Your task to perform on an android device: open app "Google Chrome" Image 0: 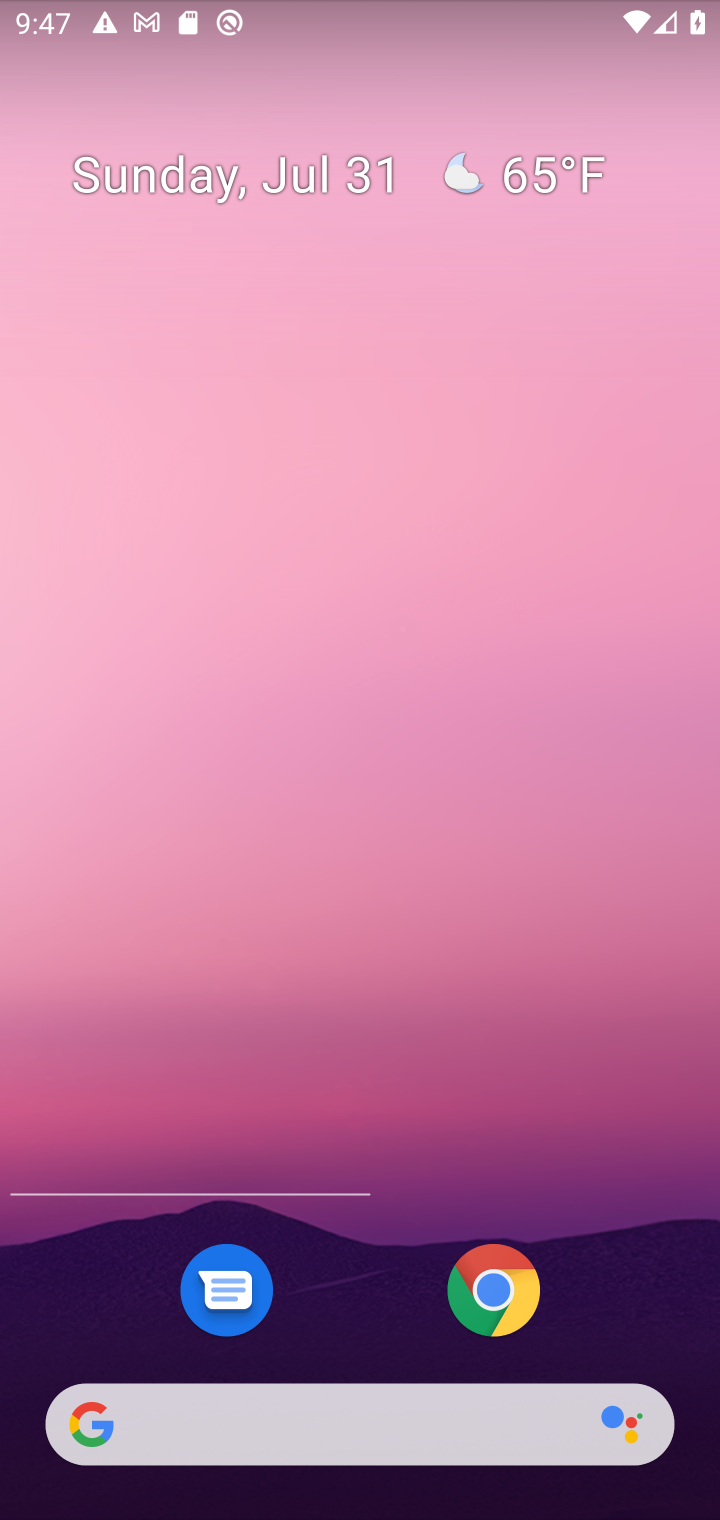
Step 0: press home button
Your task to perform on an android device: open app "Google Chrome" Image 1: 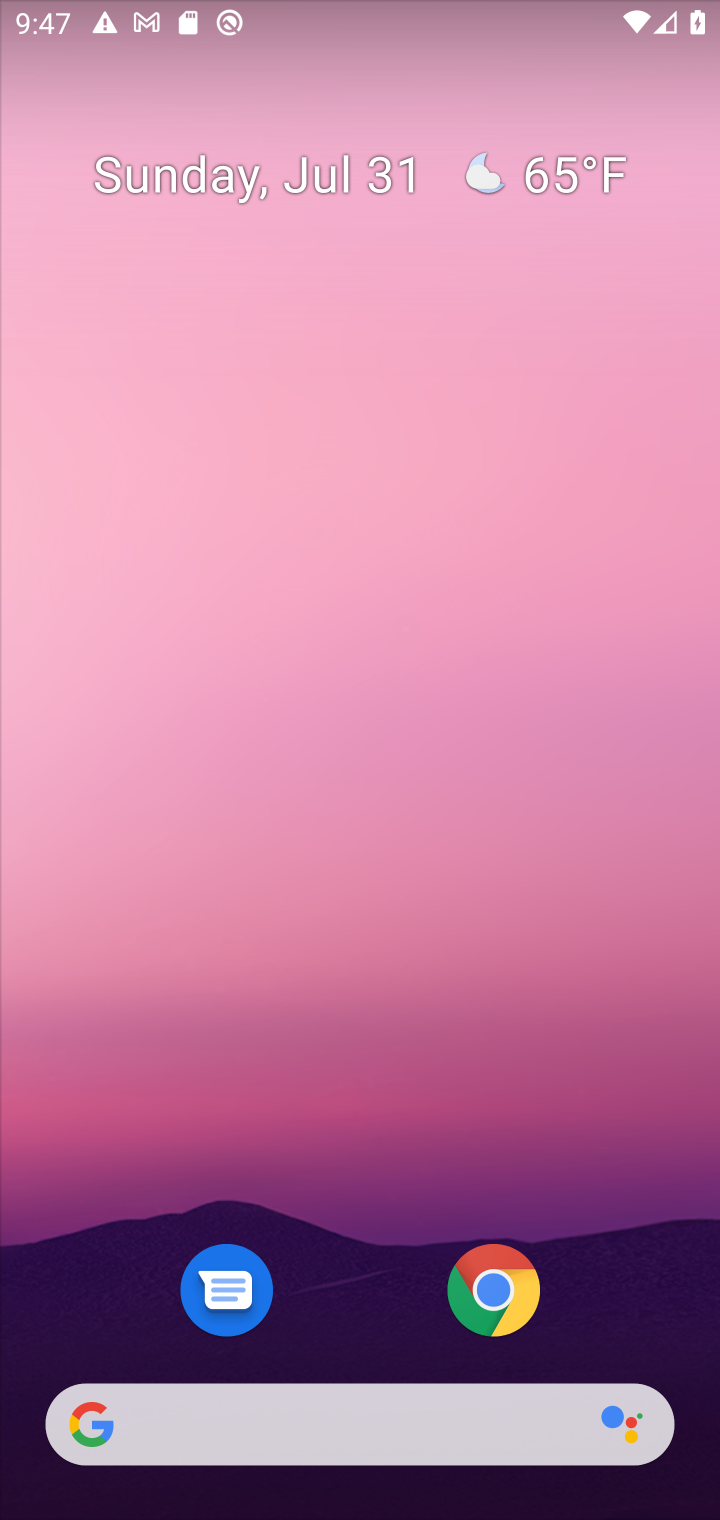
Step 1: drag from (609, 1287) to (600, 159)
Your task to perform on an android device: open app "Google Chrome" Image 2: 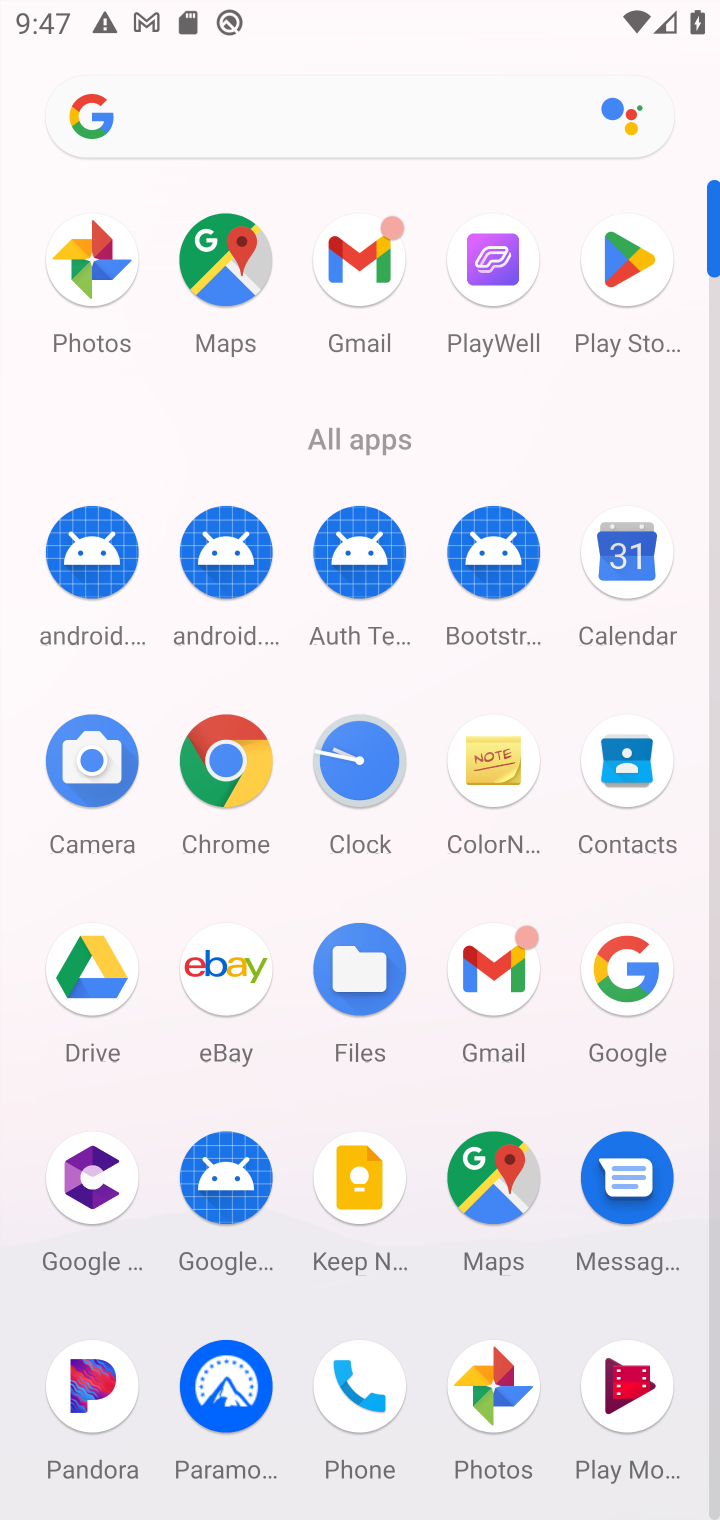
Step 2: click (619, 262)
Your task to perform on an android device: open app "Google Chrome" Image 3: 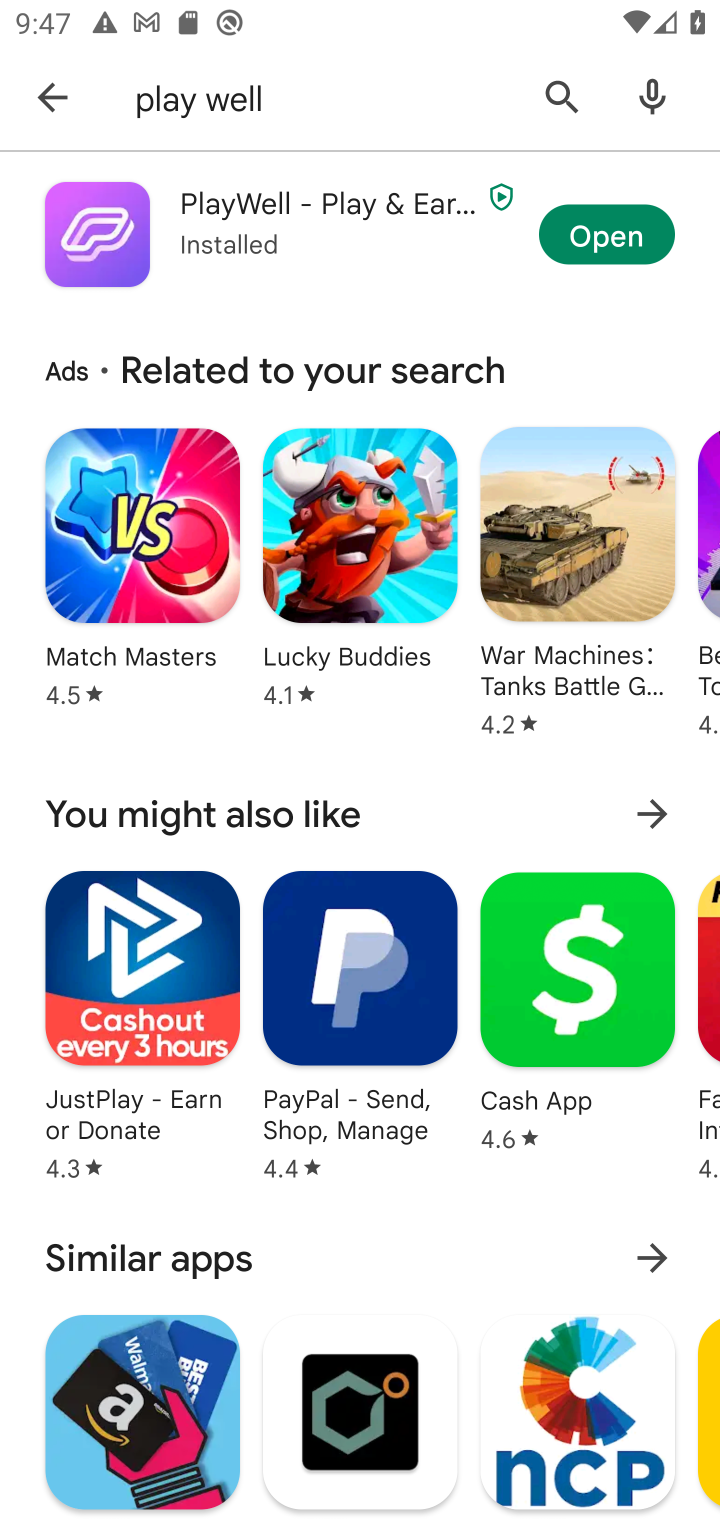
Step 3: click (554, 88)
Your task to perform on an android device: open app "Google Chrome" Image 4: 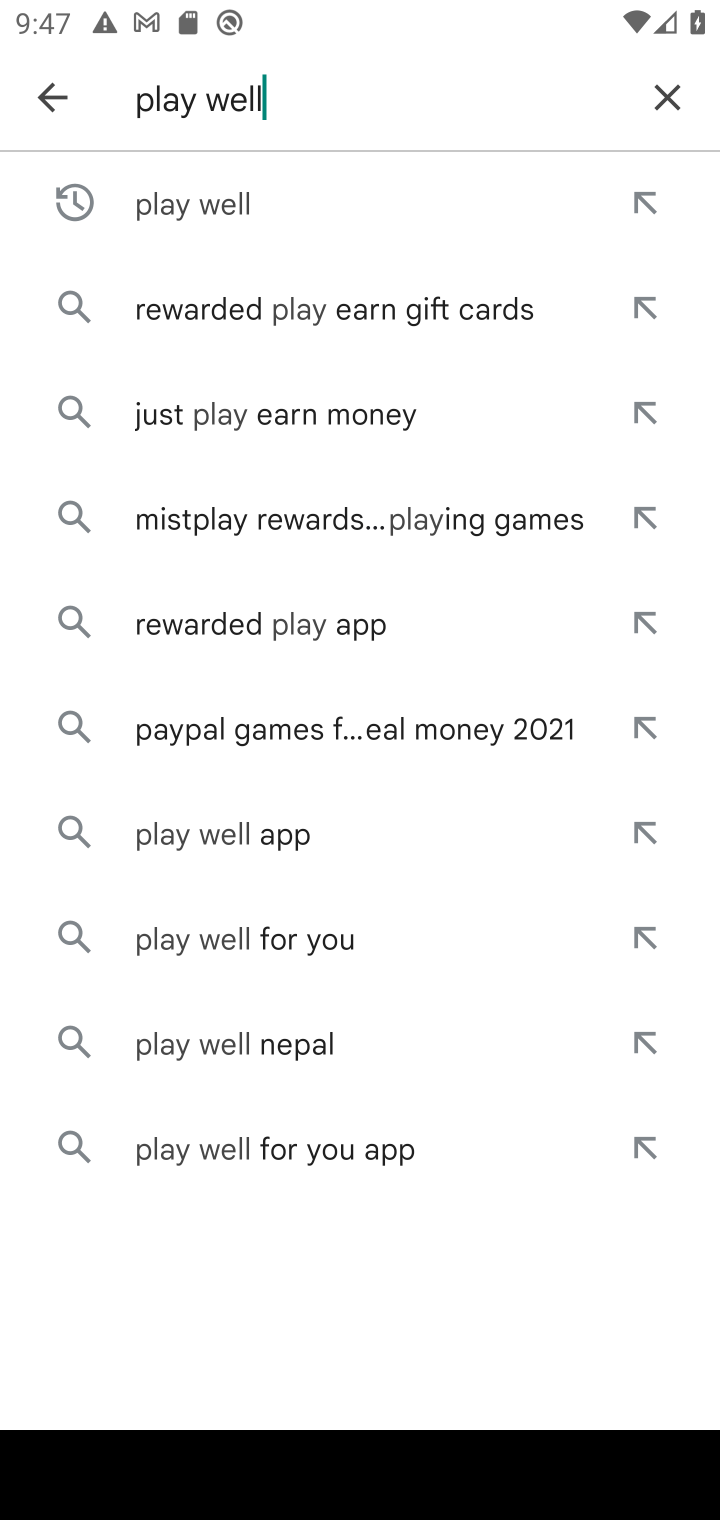
Step 4: click (671, 98)
Your task to perform on an android device: open app "Google Chrome" Image 5: 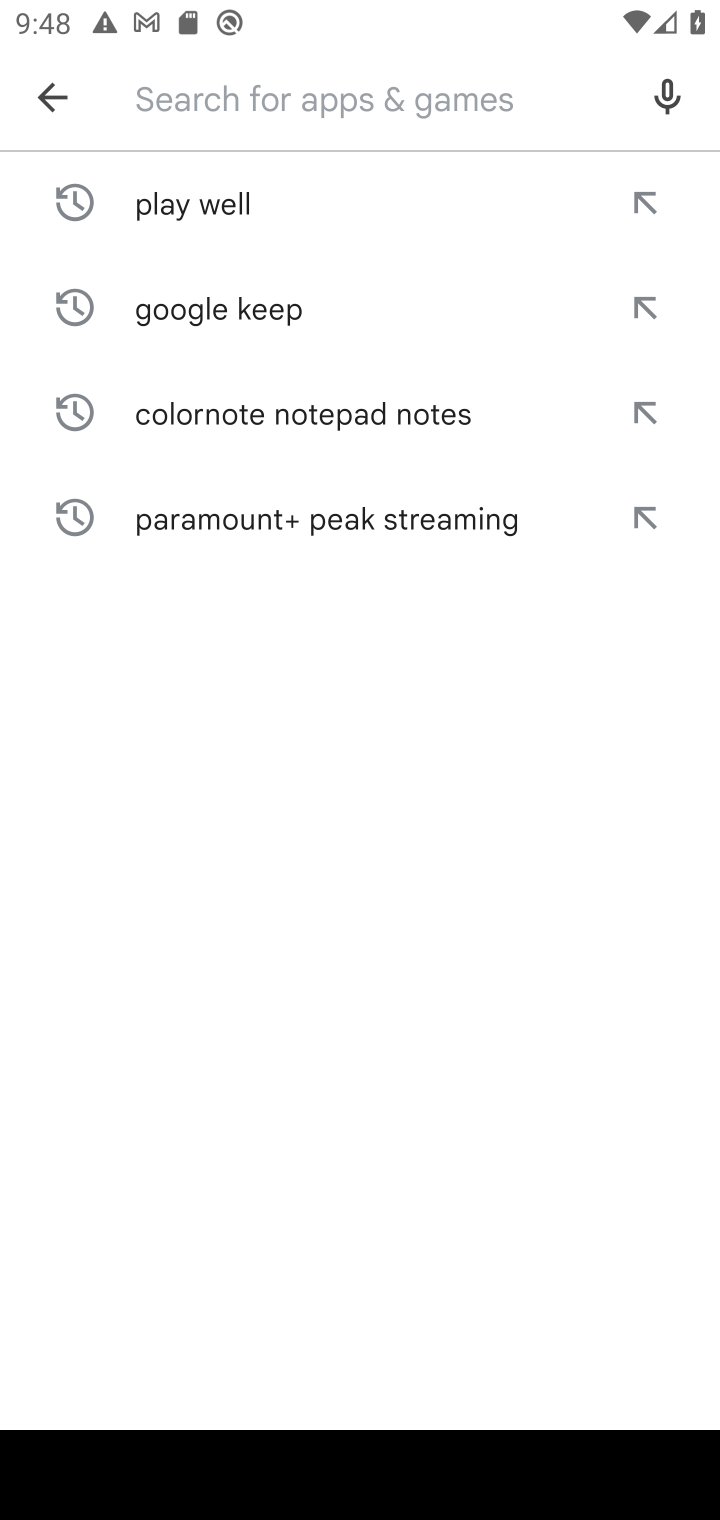
Step 5: type "google chrome"
Your task to perform on an android device: open app "Google Chrome" Image 6: 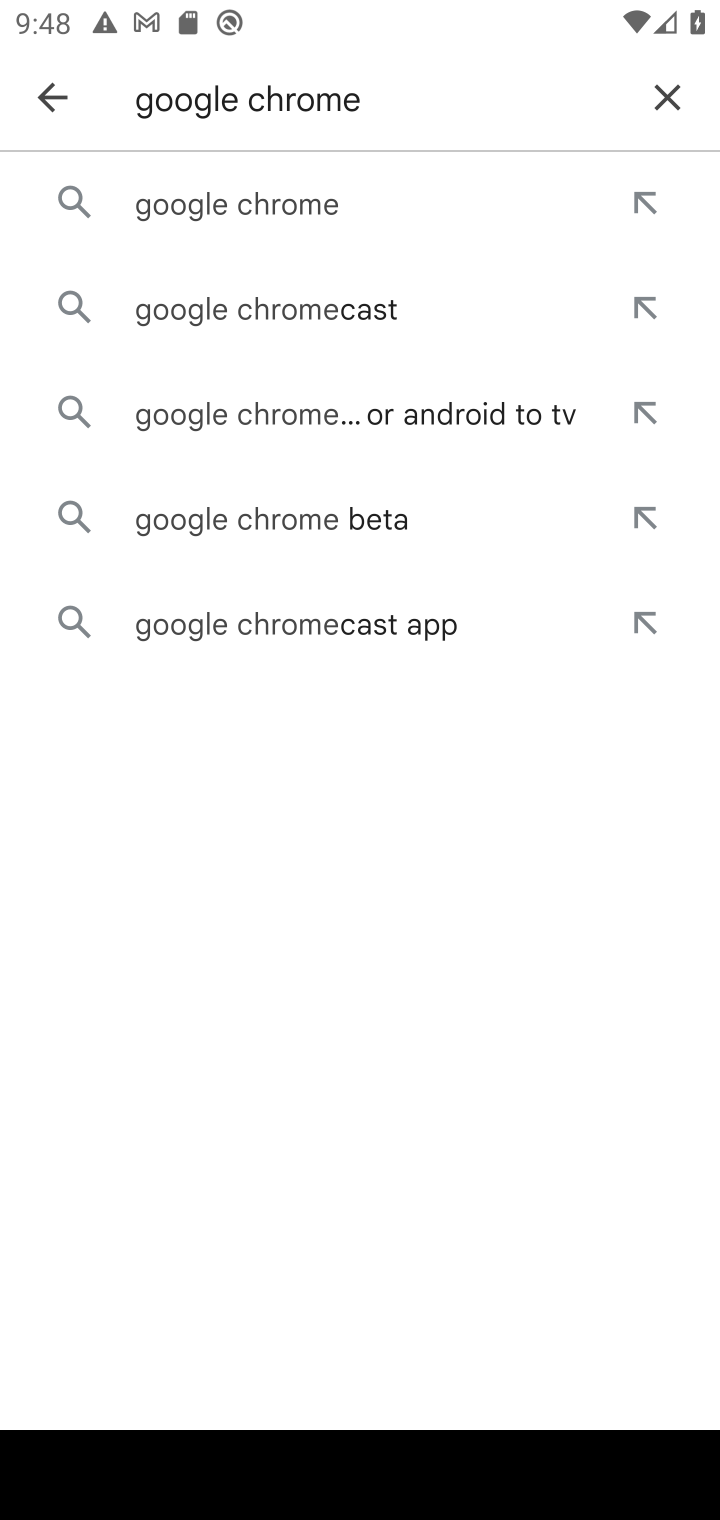
Step 6: click (349, 196)
Your task to perform on an android device: open app "Google Chrome" Image 7: 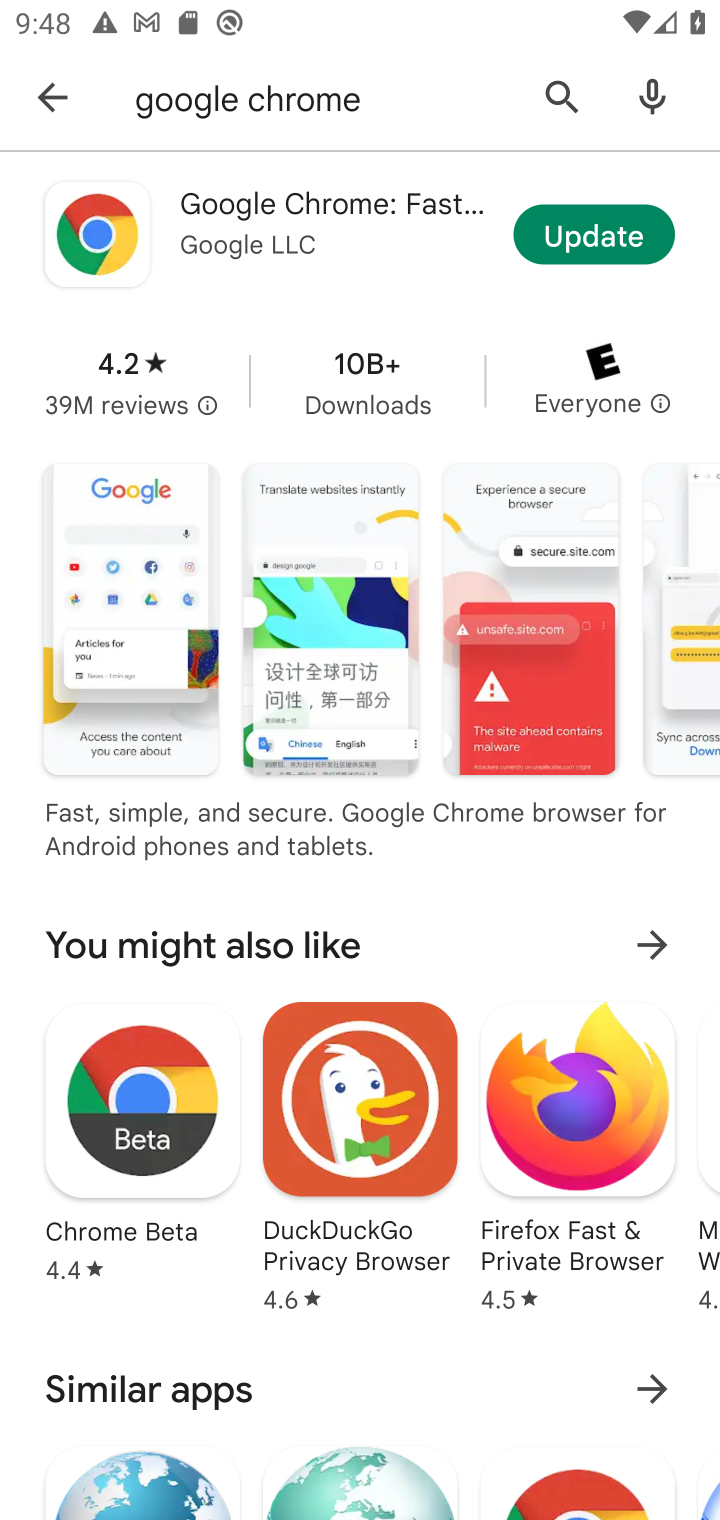
Step 7: click (611, 236)
Your task to perform on an android device: open app "Google Chrome" Image 8: 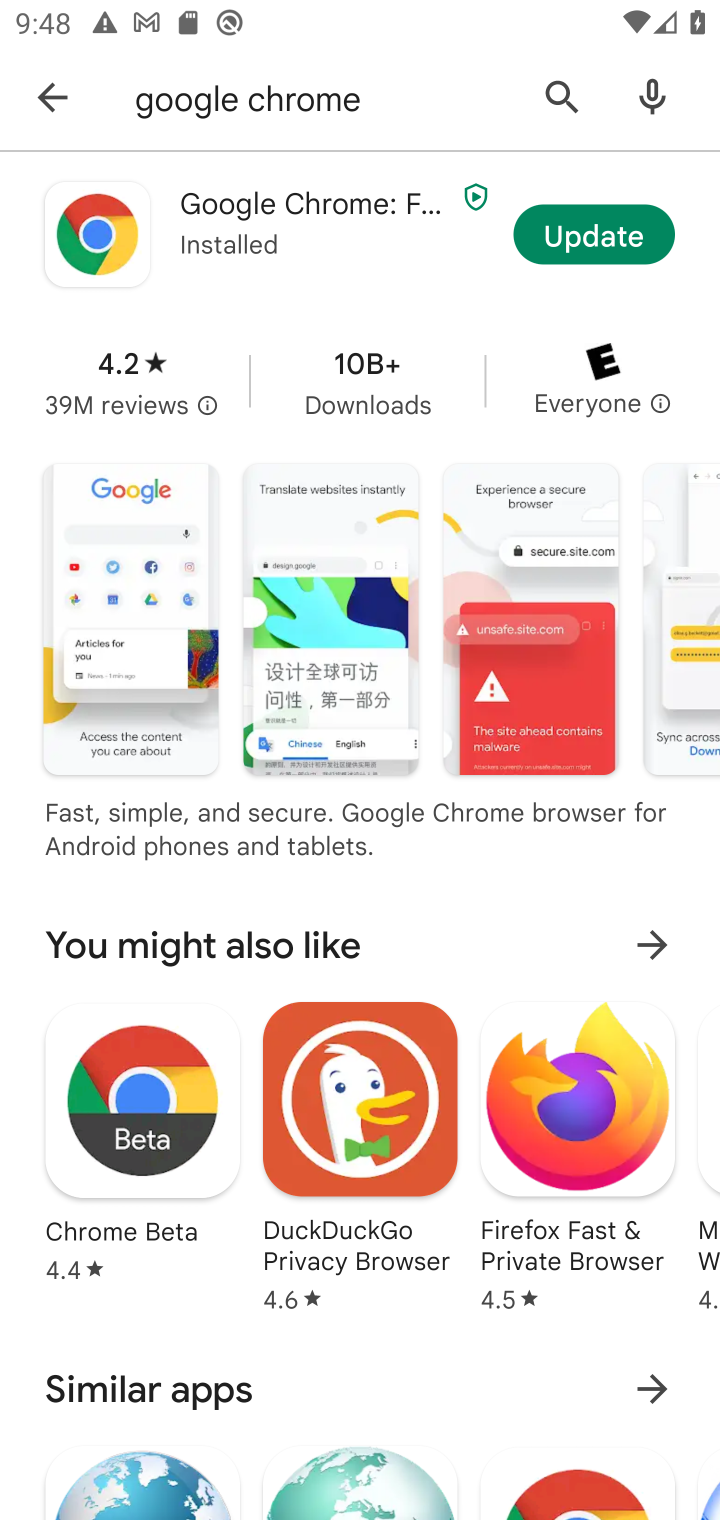
Step 8: click (606, 225)
Your task to perform on an android device: open app "Google Chrome" Image 9: 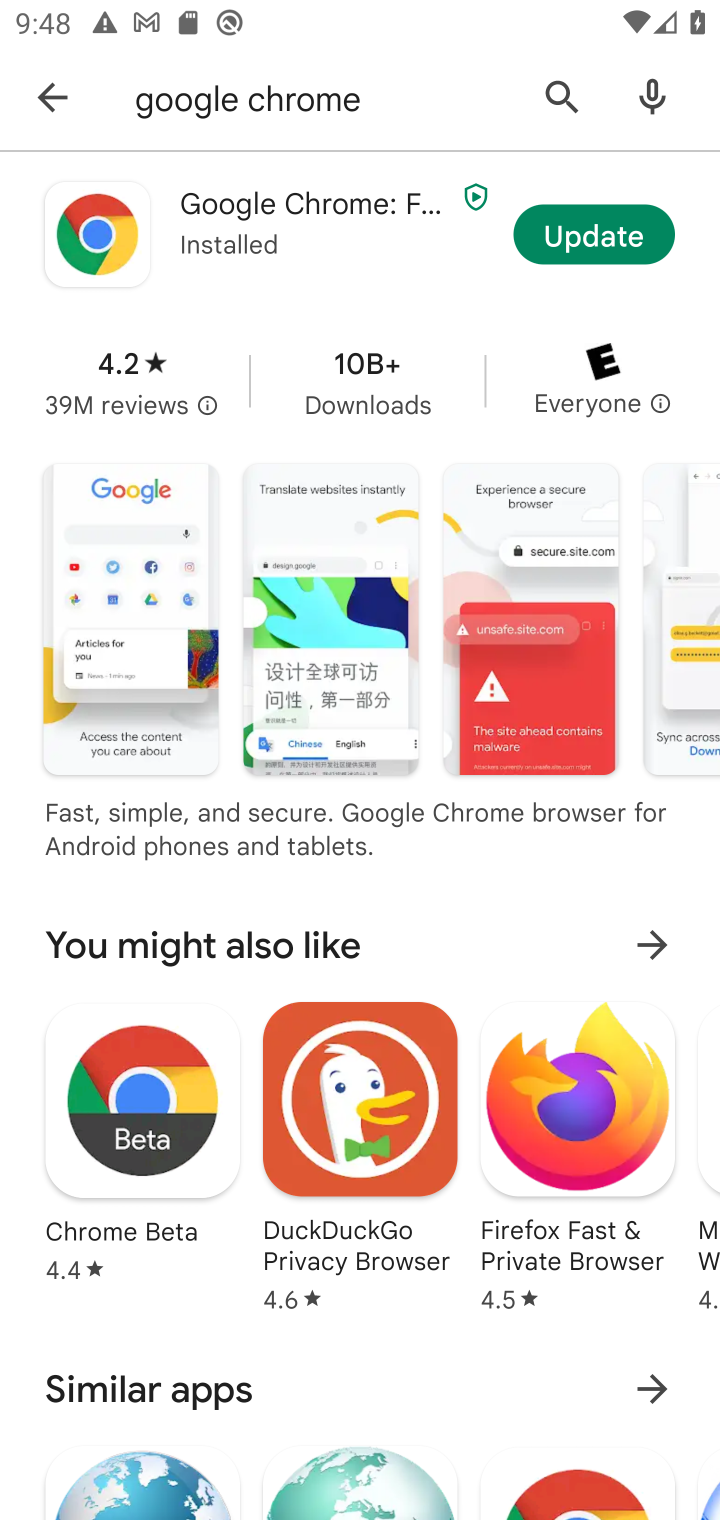
Step 9: task complete